Your task to perform on an android device: check data usage Image 0: 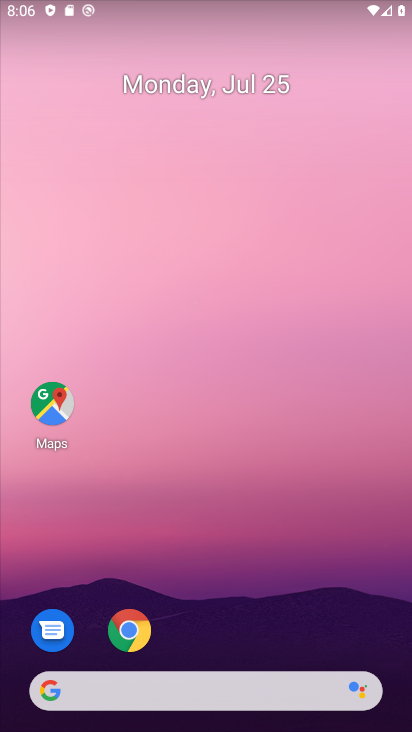
Step 0: click (227, 118)
Your task to perform on an android device: check data usage Image 1: 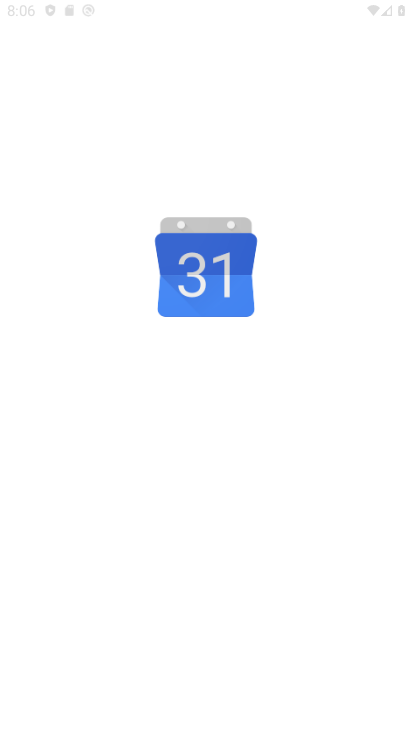
Step 1: drag from (33, 720) to (97, 398)
Your task to perform on an android device: check data usage Image 2: 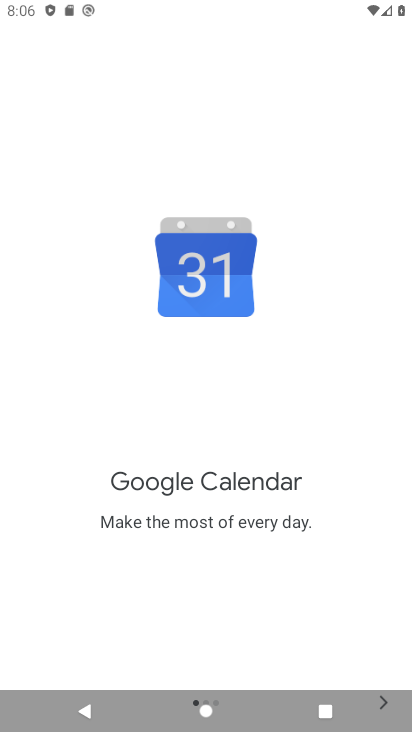
Step 2: press home button
Your task to perform on an android device: check data usage Image 3: 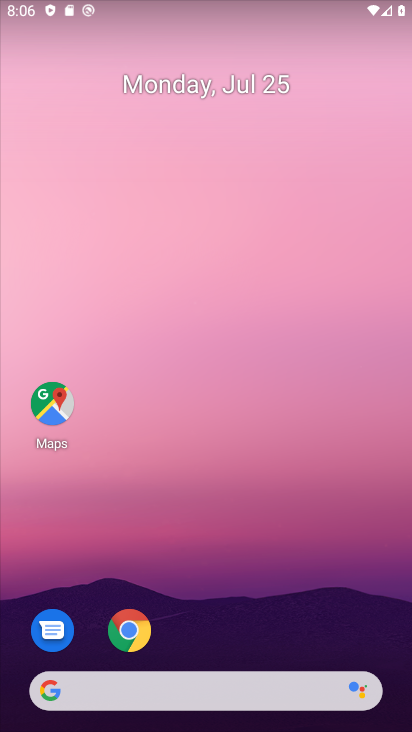
Step 3: drag from (18, 705) to (204, 152)
Your task to perform on an android device: check data usage Image 4: 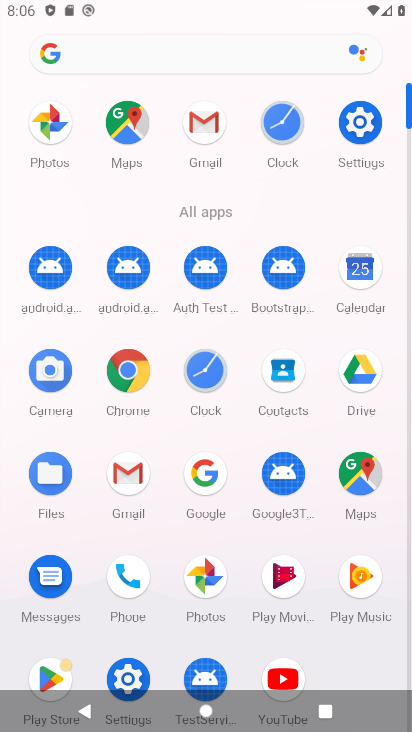
Step 4: click (129, 677)
Your task to perform on an android device: check data usage Image 5: 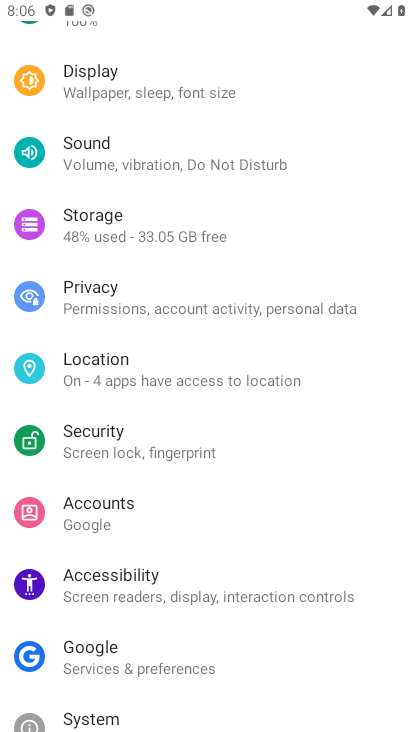
Step 5: drag from (192, 69) to (200, 700)
Your task to perform on an android device: check data usage Image 6: 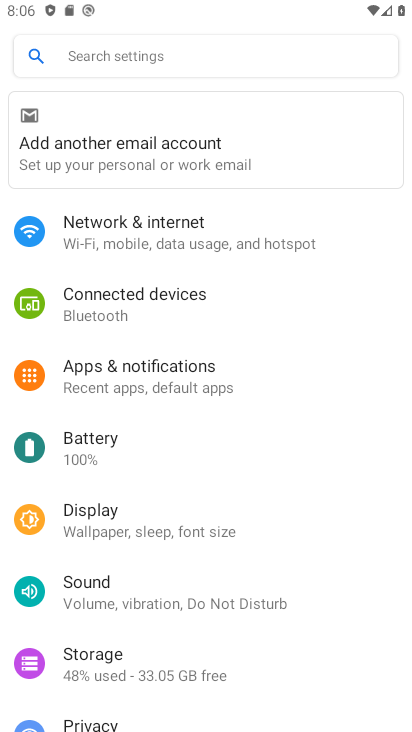
Step 6: click (125, 240)
Your task to perform on an android device: check data usage Image 7: 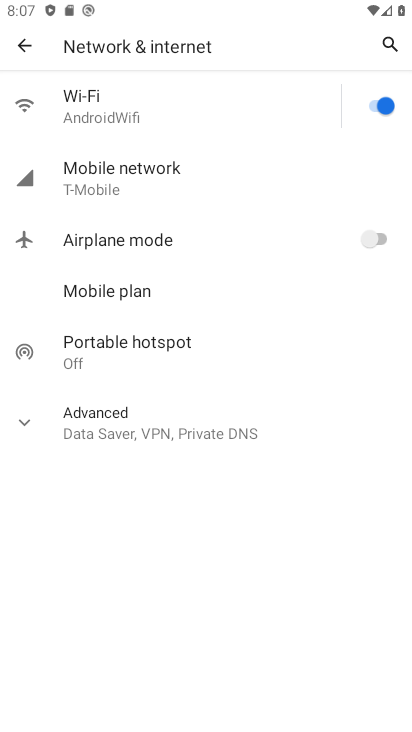
Step 7: click (166, 182)
Your task to perform on an android device: check data usage Image 8: 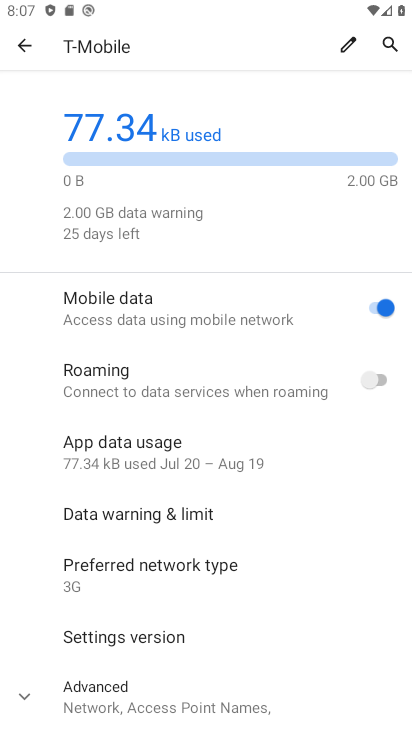
Step 8: task complete